Your task to perform on an android device: open chrome privacy settings Image 0: 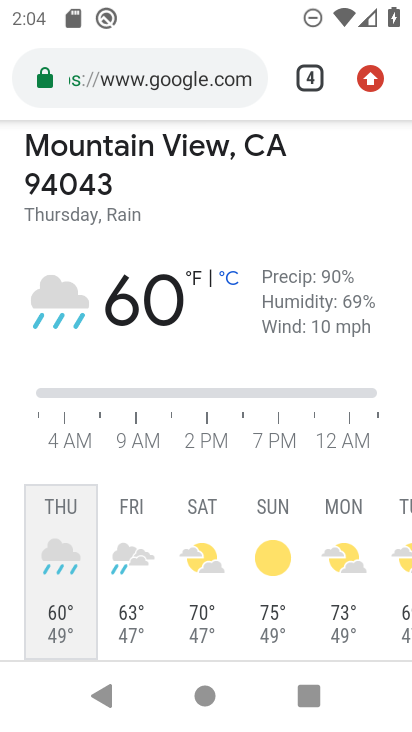
Step 0: press home button
Your task to perform on an android device: open chrome privacy settings Image 1: 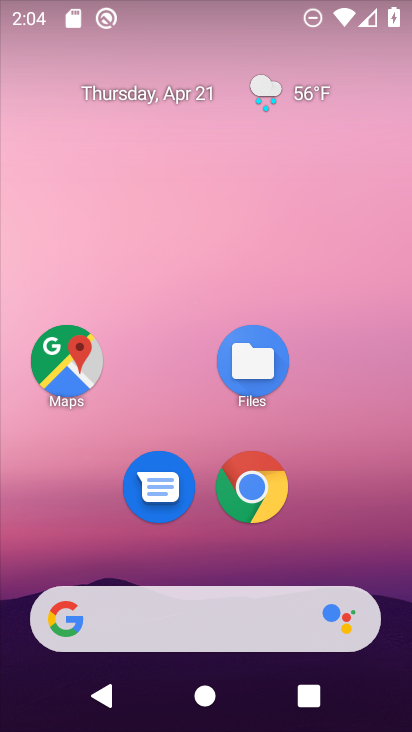
Step 1: drag from (363, 536) to (404, 54)
Your task to perform on an android device: open chrome privacy settings Image 2: 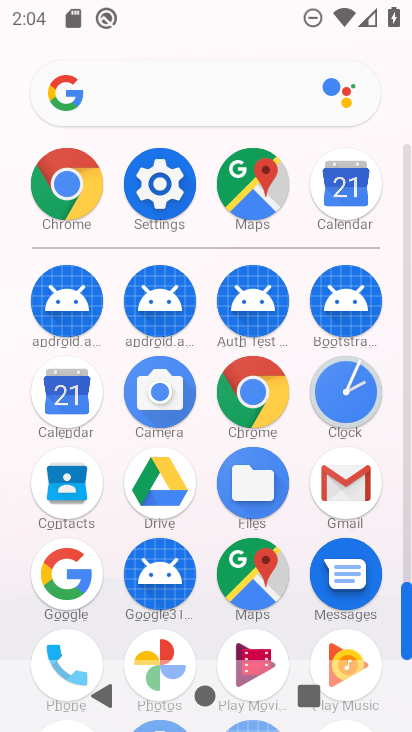
Step 2: click (43, 180)
Your task to perform on an android device: open chrome privacy settings Image 3: 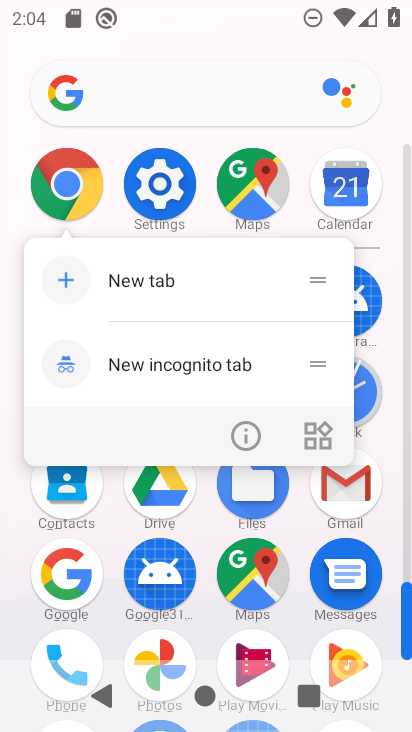
Step 3: click (45, 168)
Your task to perform on an android device: open chrome privacy settings Image 4: 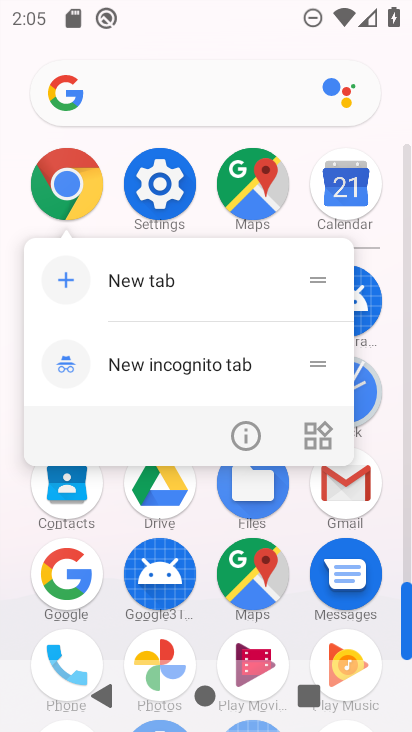
Step 4: drag from (371, 441) to (410, 322)
Your task to perform on an android device: open chrome privacy settings Image 5: 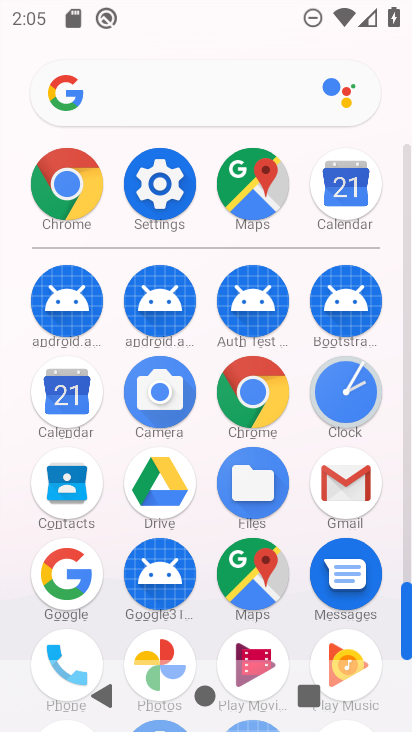
Step 5: click (257, 388)
Your task to perform on an android device: open chrome privacy settings Image 6: 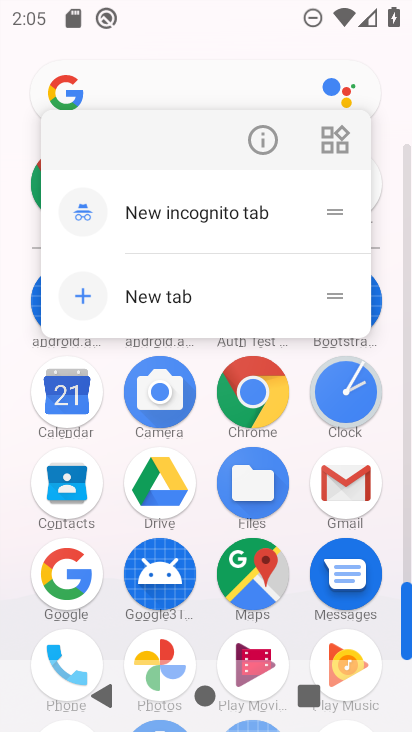
Step 6: click (258, 407)
Your task to perform on an android device: open chrome privacy settings Image 7: 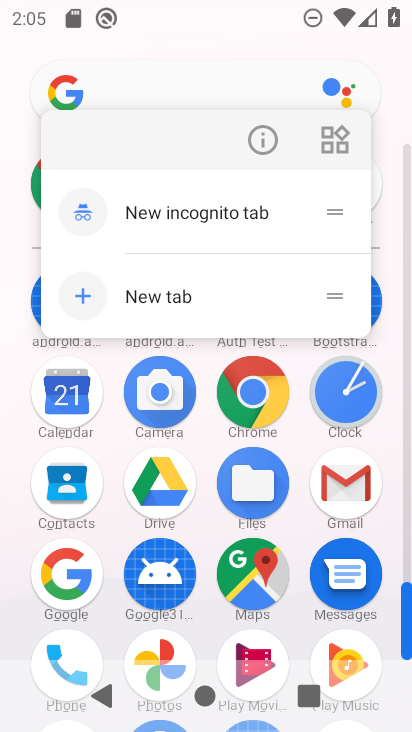
Step 7: click (267, 406)
Your task to perform on an android device: open chrome privacy settings Image 8: 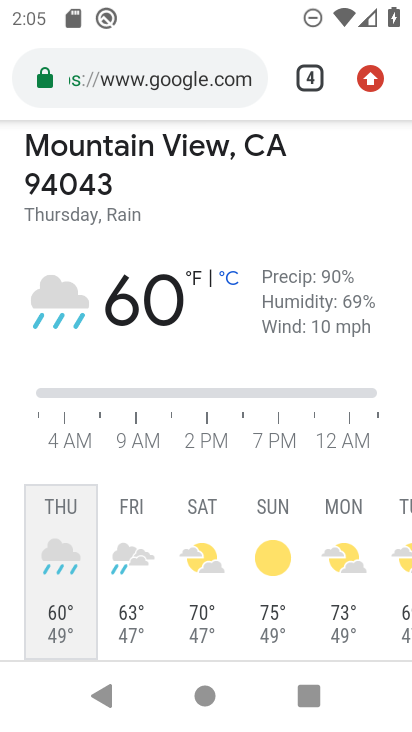
Step 8: click (367, 78)
Your task to perform on an android device: open chrome privacy settings Image 9: 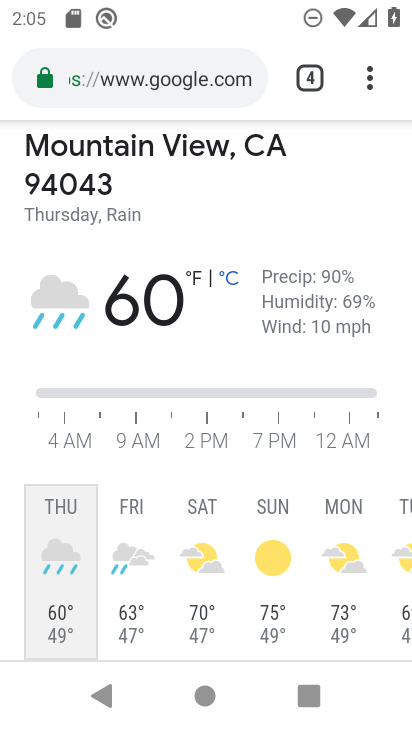
Step 9: drag from (372, 91) to (160, 563)
Your task to perform on an android device: open chrome privacy settings Image 10: 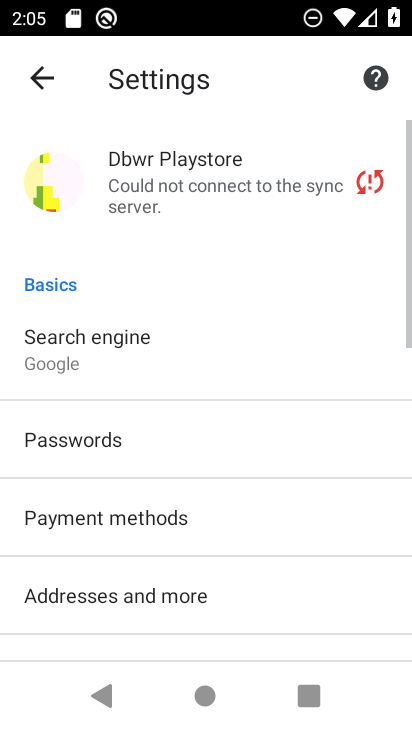
Step 10: drag from (290, 610) to (339, 297)
Your task to perform on an android device: open chrome privacy settings Image 11: 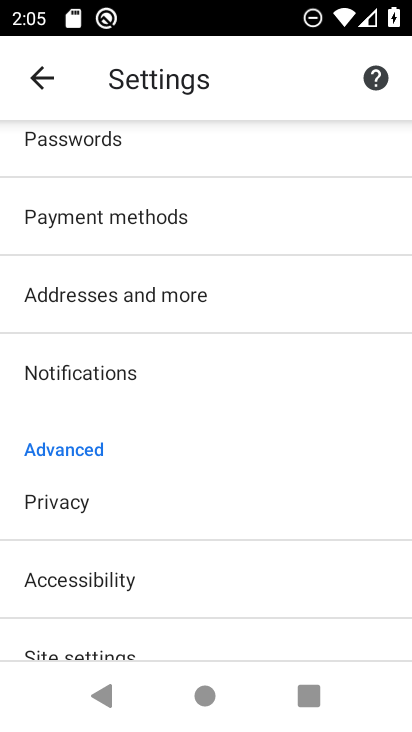
Step 11: click (67, 500)
Your task to perform on an android device: open chrome privacy settings Image 12: 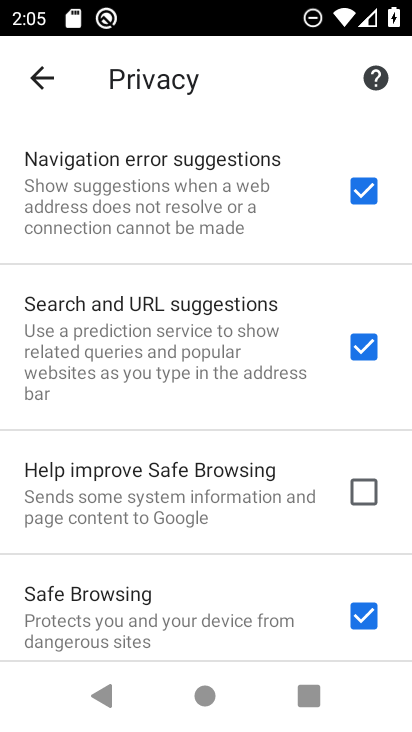
Step 12: task complete